Your task to perform on an android device: uninstall "Microsoft Outlook" Image 0: 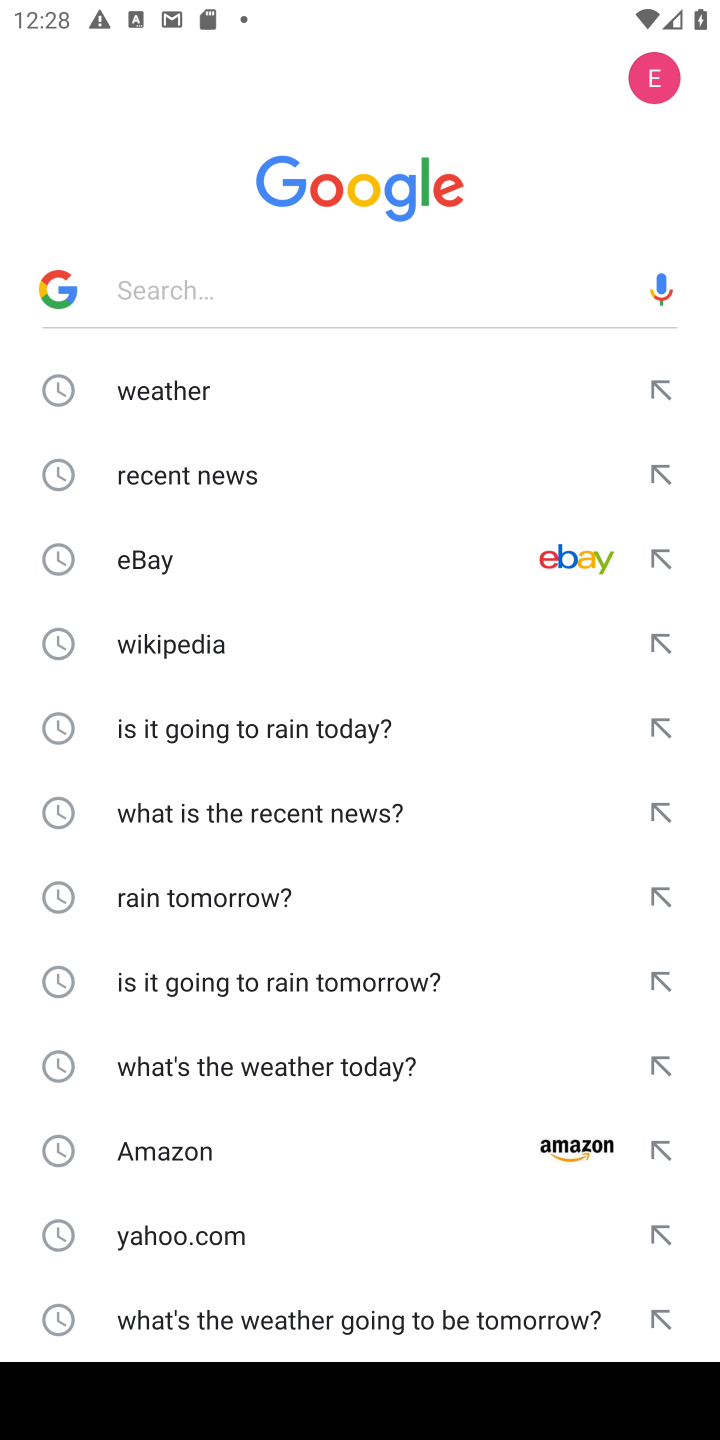
Step 0: press home button
Your task to perform on an android device: uninstall "Microsoft Outlook" Image 1: 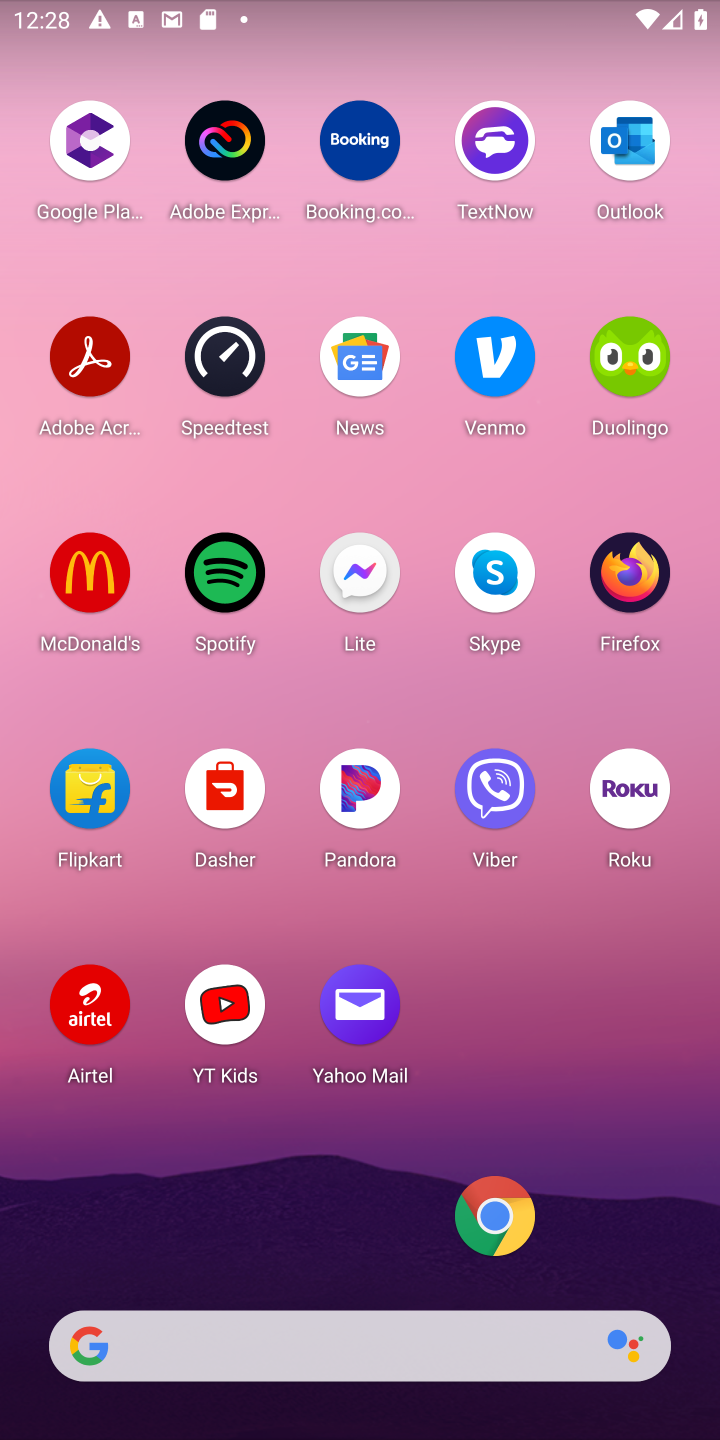
Step 1: drag from (277, 1340) to (326, 255)
Your task to perform on an android device: uninstall "Microsoft Outlook" Image 2: 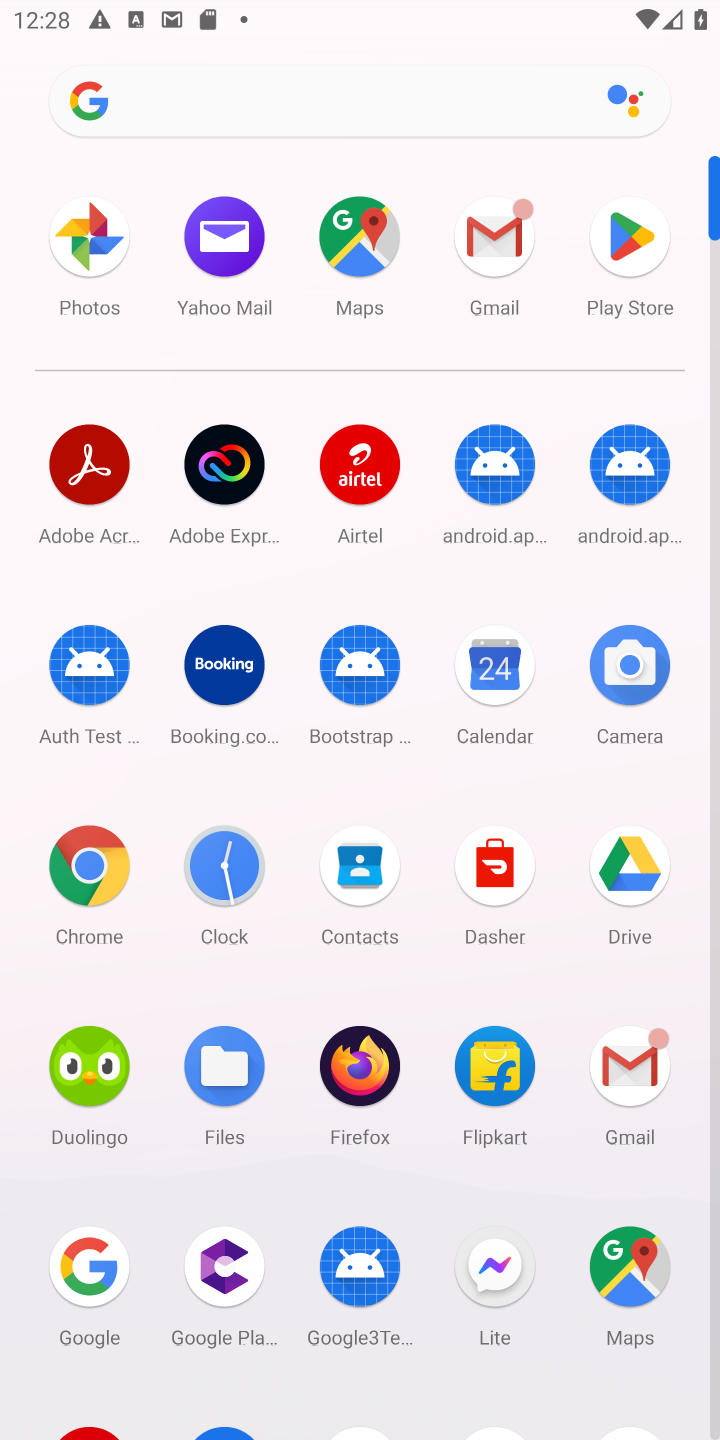
Step 2: click (634, 245)
Your task to perform on an android device: uninstall "Microsoft Outlook" Image 3: 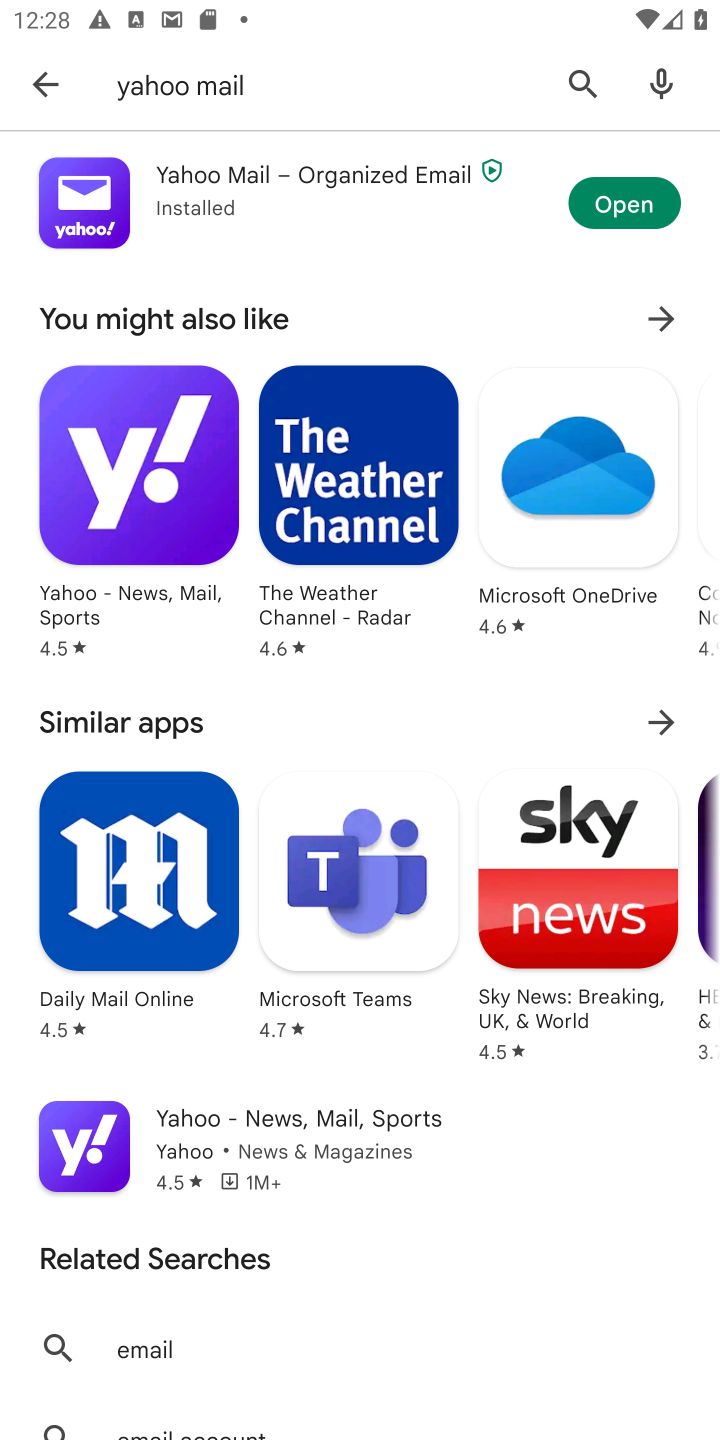
Step 3: press back button
Your task to perform on an android device: uninstall "Microsoft Outlook" Image 4: 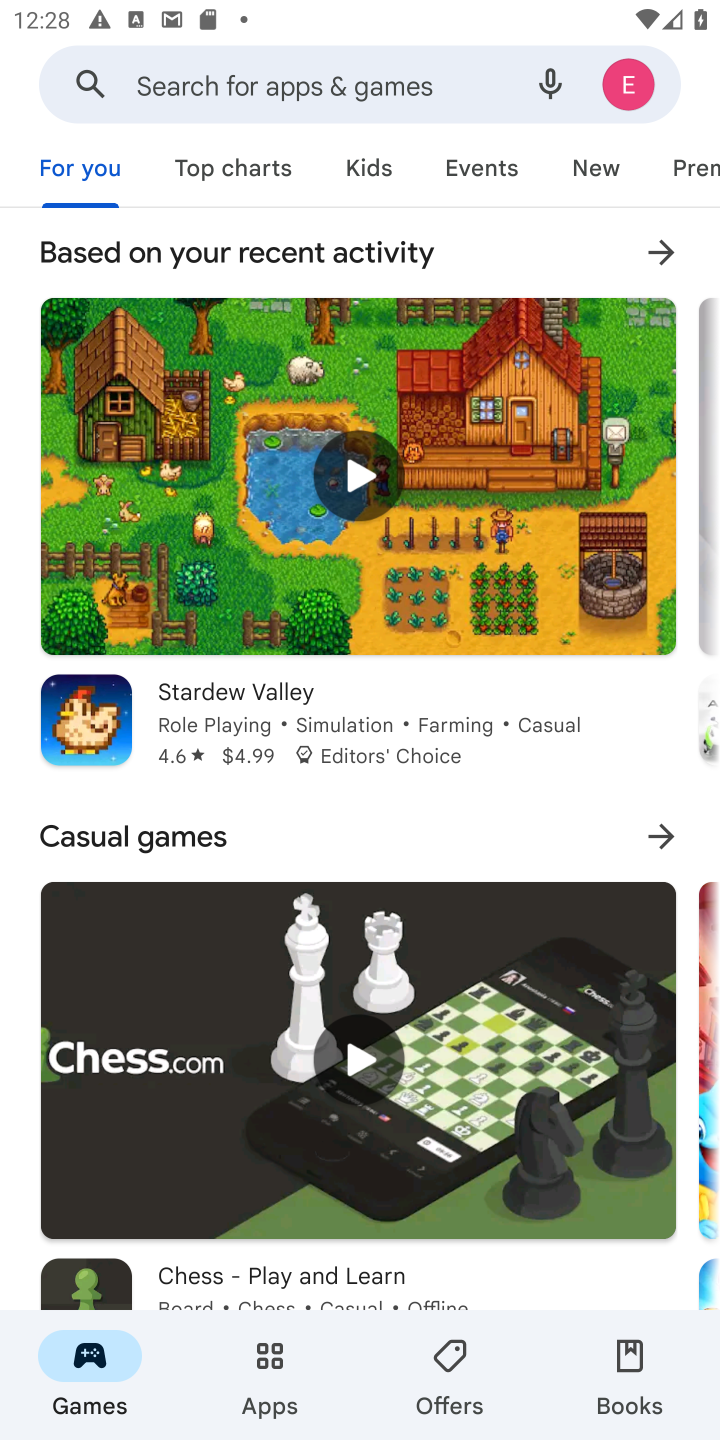
Step 4: click (407, 95)
Your task to perform on an android device: uninstall "Microsoft Outlook" Image 5: 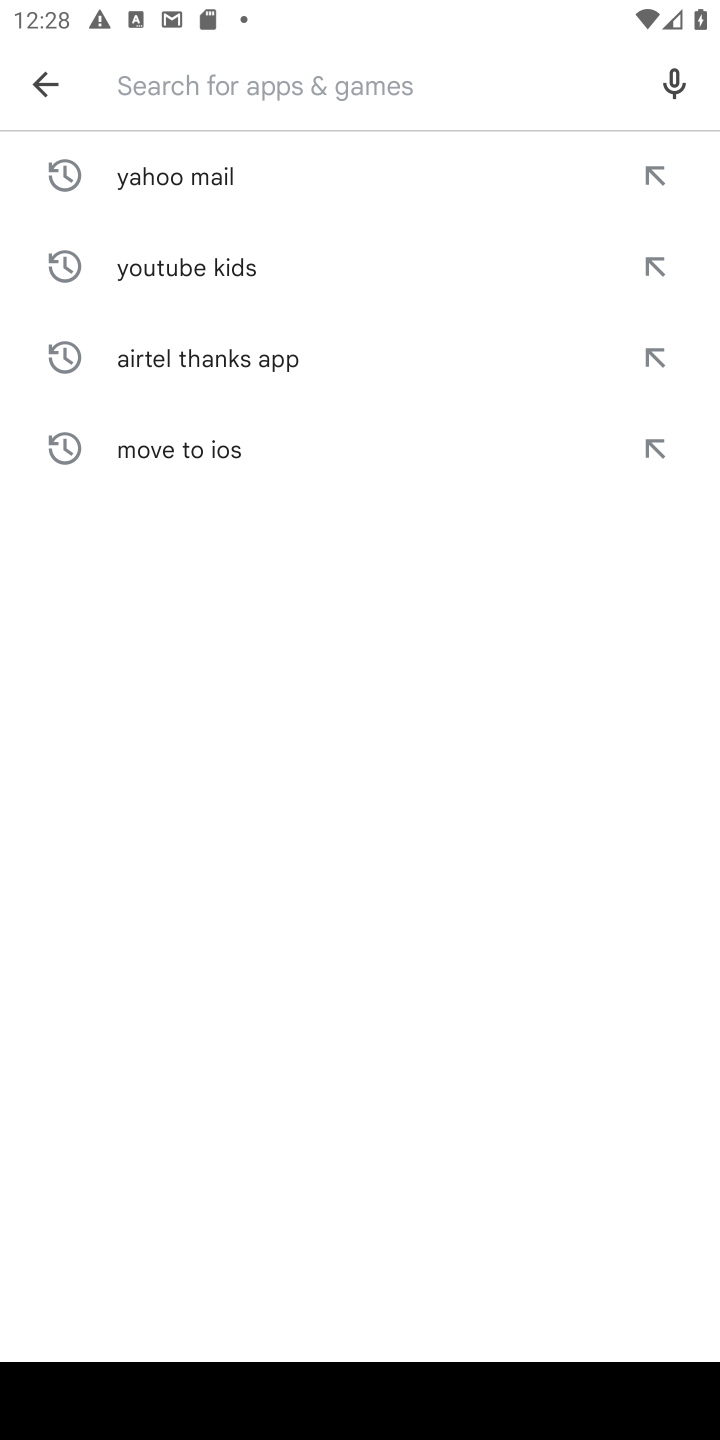
Step 5: type "Microsoft Outlook"
Your task to perform on an android device: uninstall "Microsoft Outlook" Image 6: 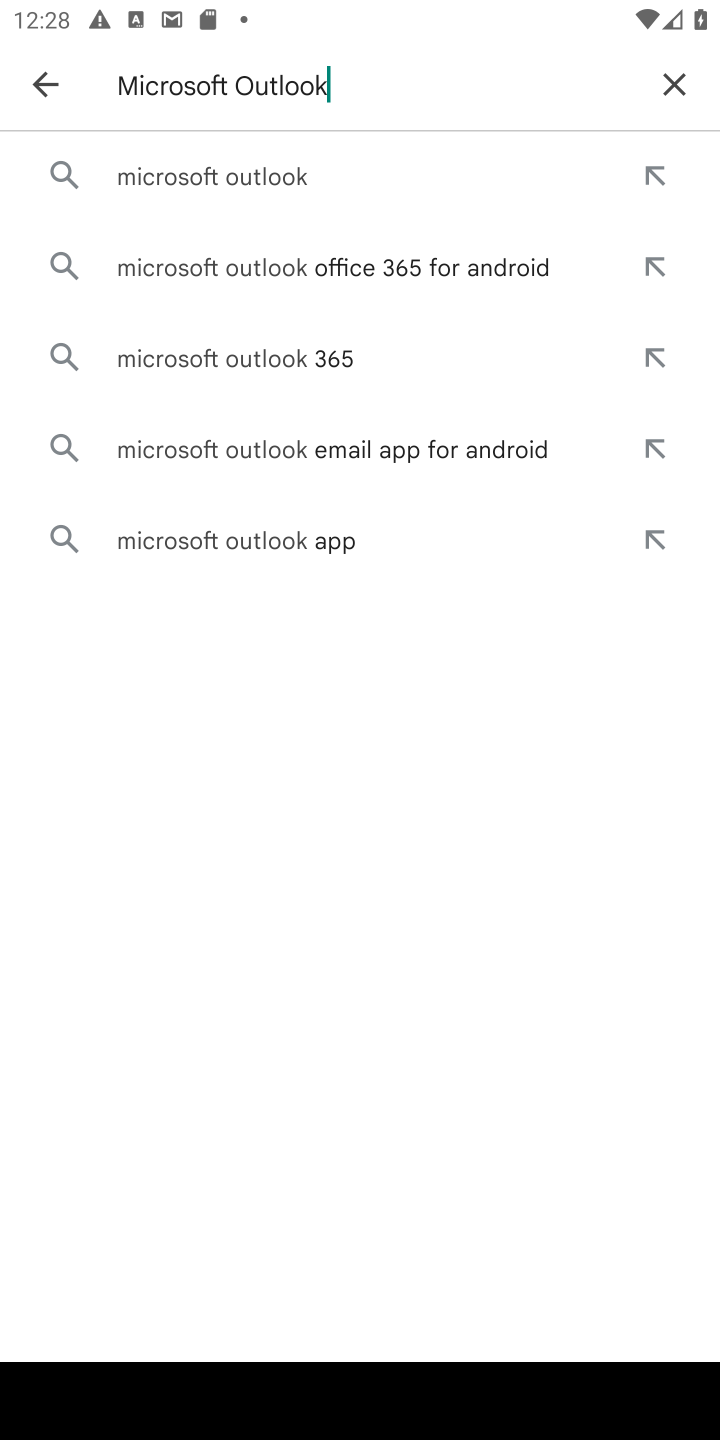
Step 6: click (273, 174)
Your task to perform on an android device: uninstall "Microsoft Outlook" Image 7: 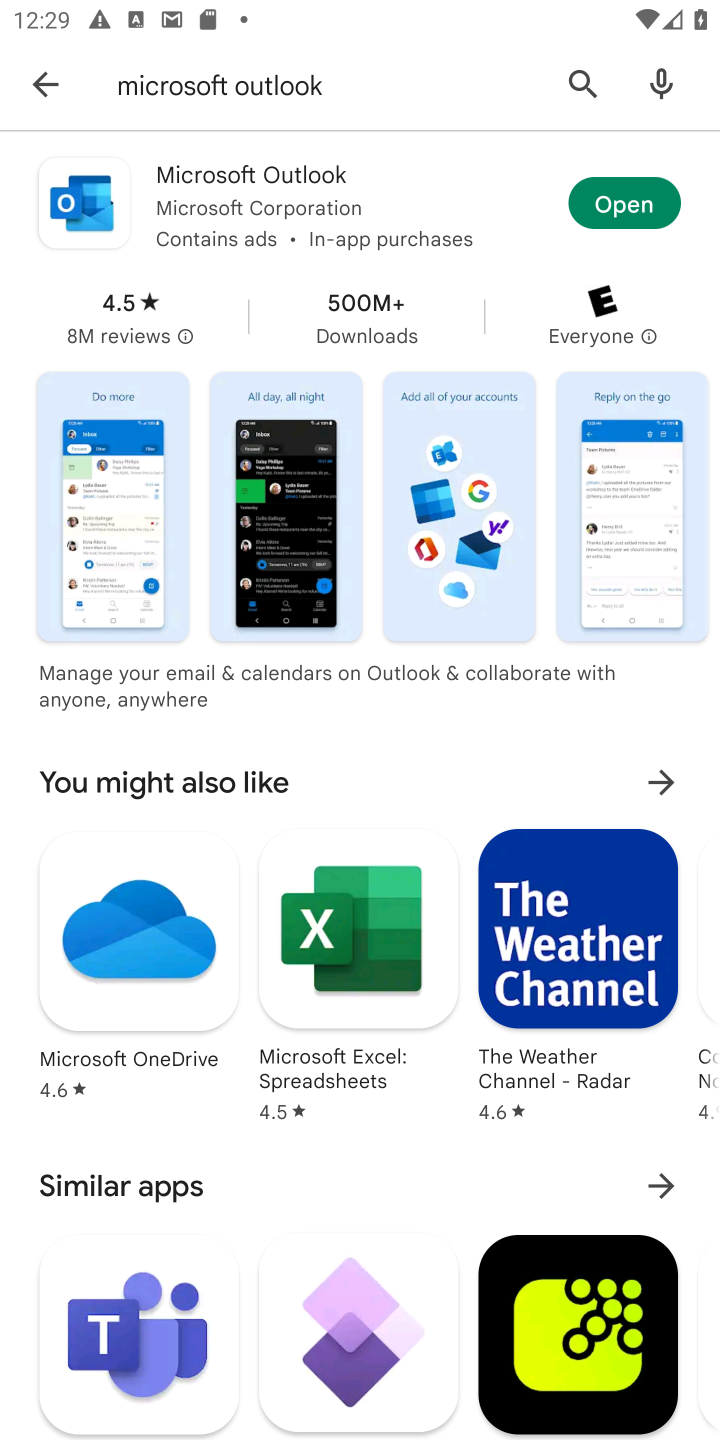
Step 7: click (205, 174)
Your task to perform on an android device: uninstall "Microsoft Outlook" Image 8: 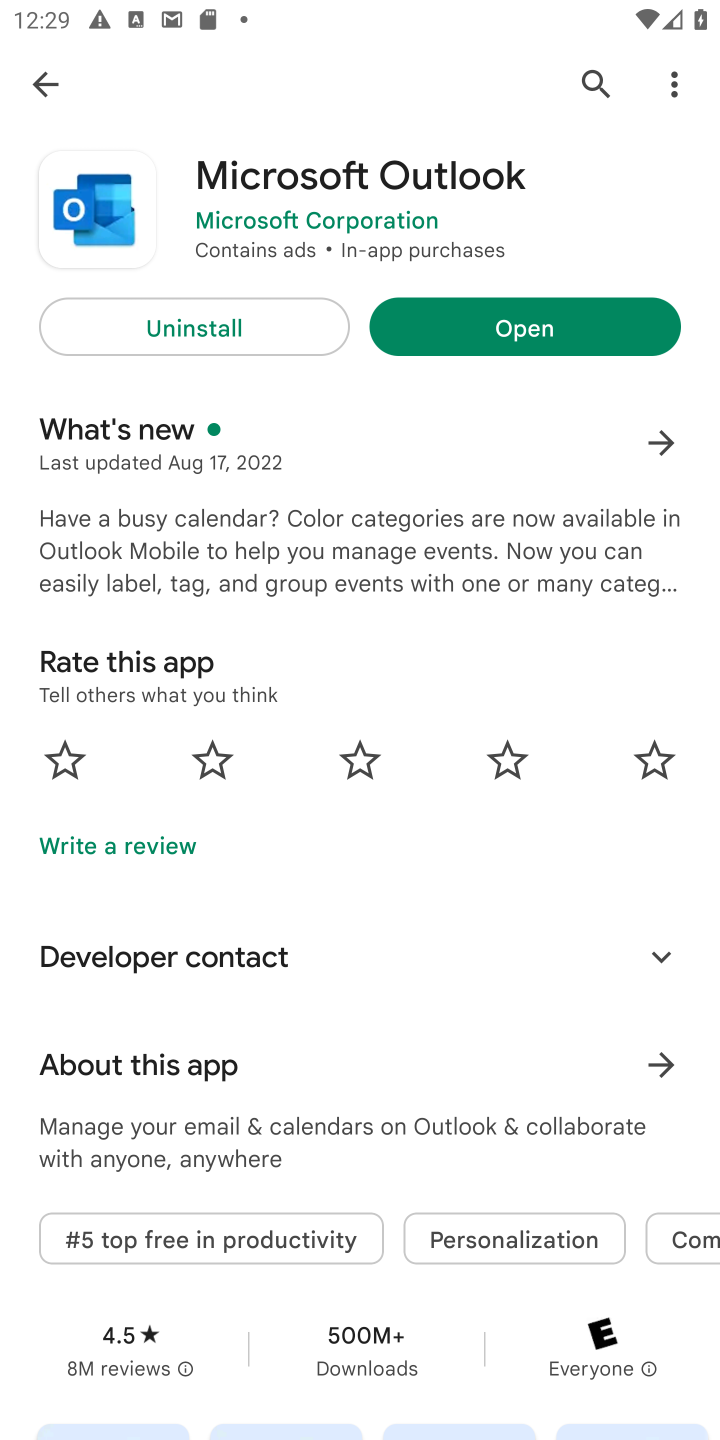
Step 8: click (194, 340)
Your task to perform on an android device: uninstall "Microsoft Outlook" Image 9: 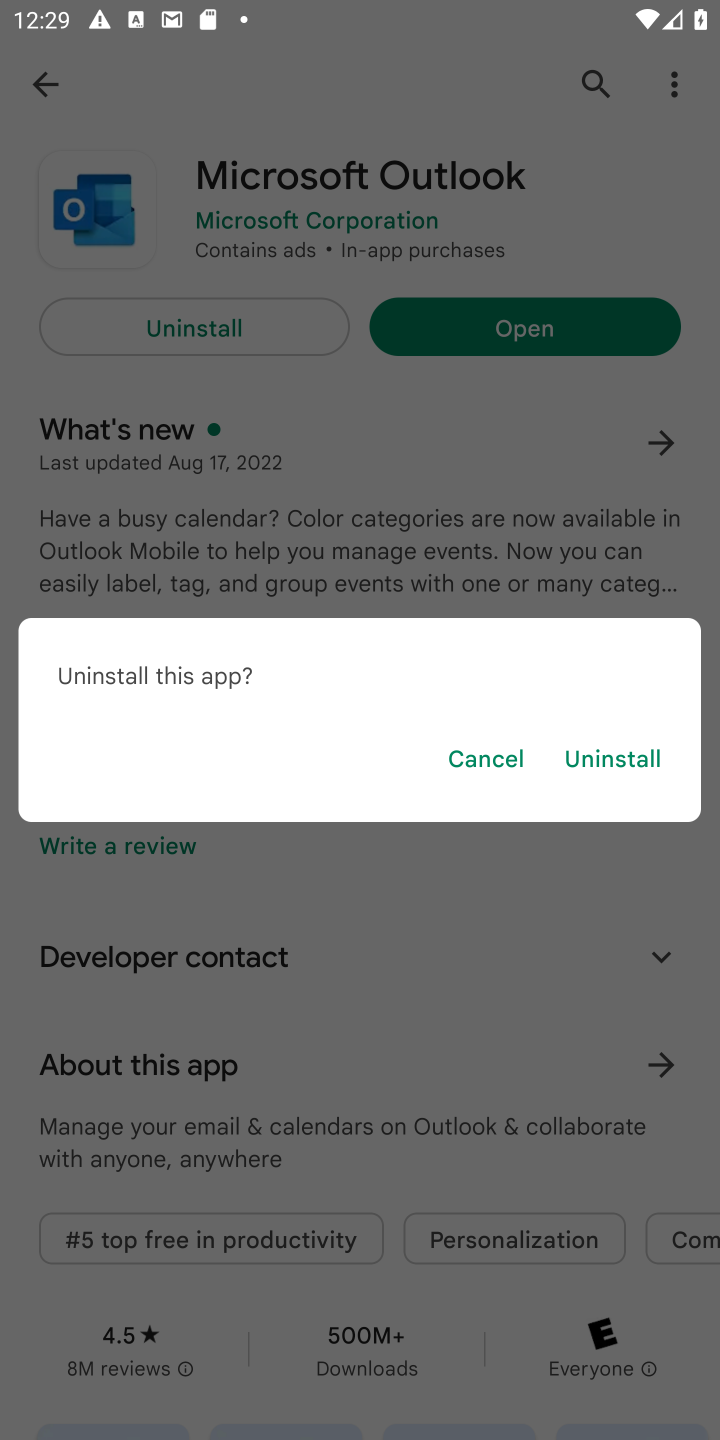
Step 9: click (605, 749)
Your task to perform on an android device: uninstall "Microsoft Outlook" Image 10: 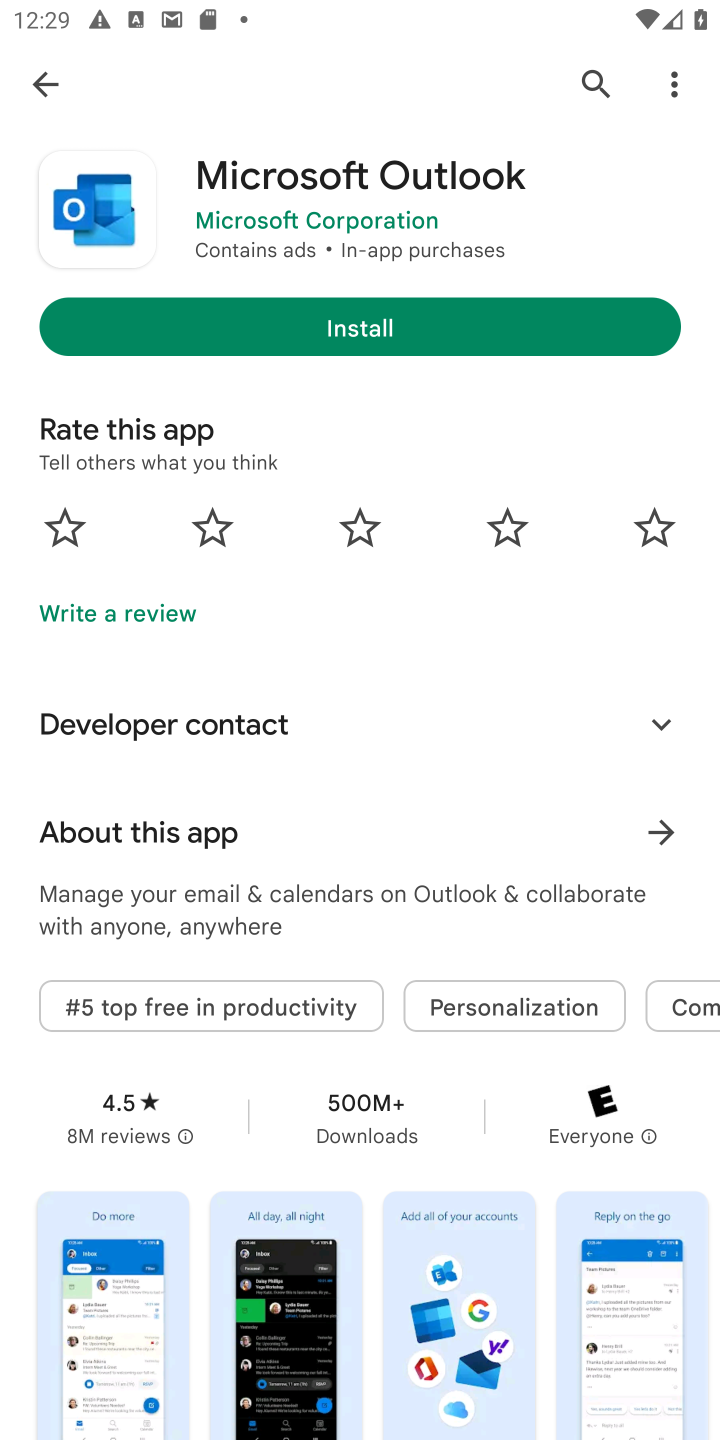
Step 10: task complete